Your task to perform on an android device: delete the emails in spam in the gmail app Image 0: 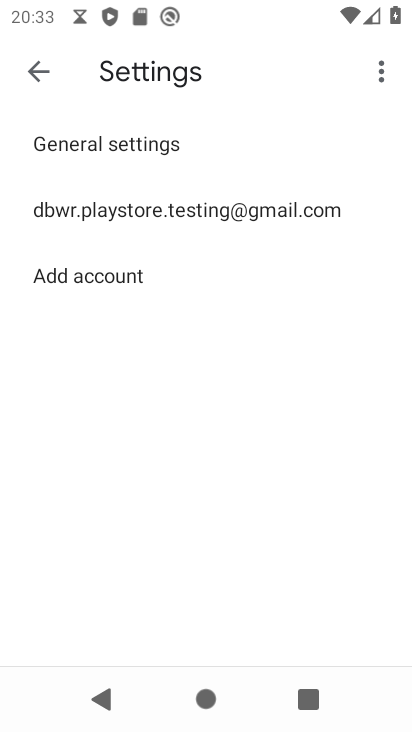
Step 0: press back button
Your task to perform on an android device: delete the emails in spam in the gmail app Image 1: 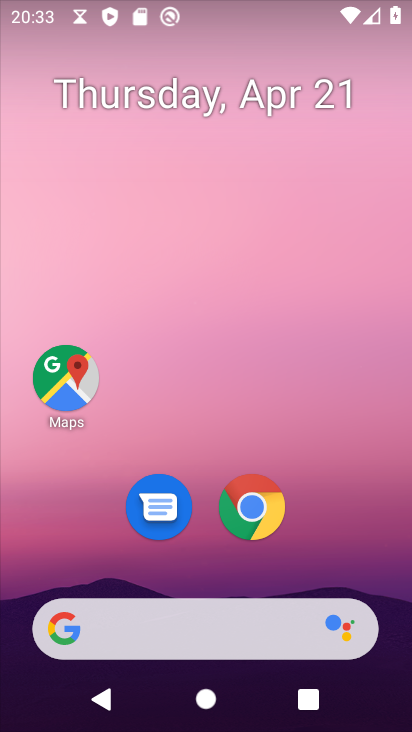
Step 1: drag from (182, 489) to (276, 46)
Your task to perform on an android device: delete the emails in spam in the gmail app Image 2: 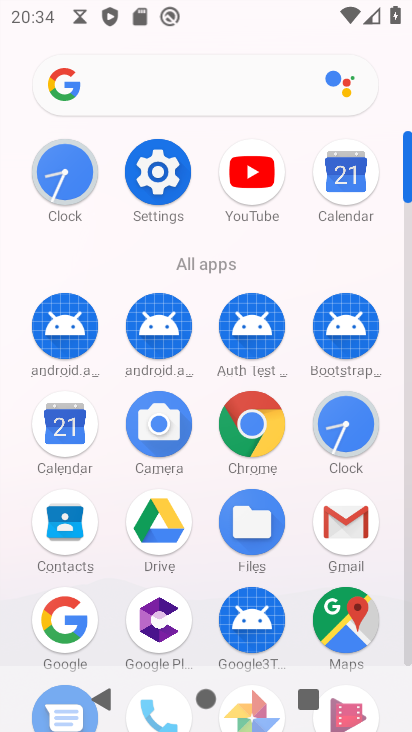
Step 2: click (343, 517)
Your task to perform on an android device: delete the emails in spam in the gmail app Image 3: 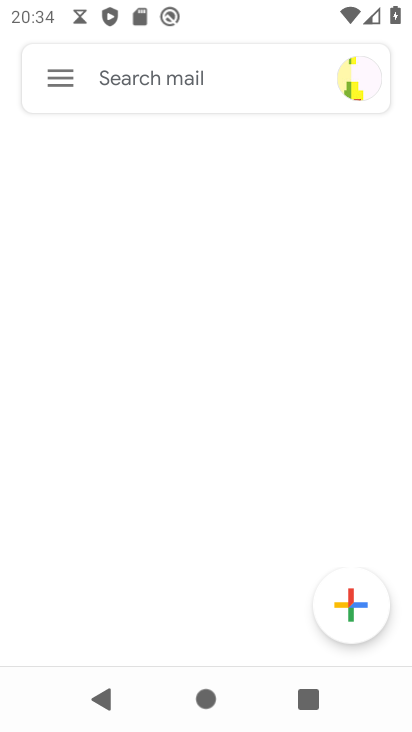
Step 3: click (346, 522)
Your task to perform on an android device: delete the emails in spam in the gmail app Image 4: 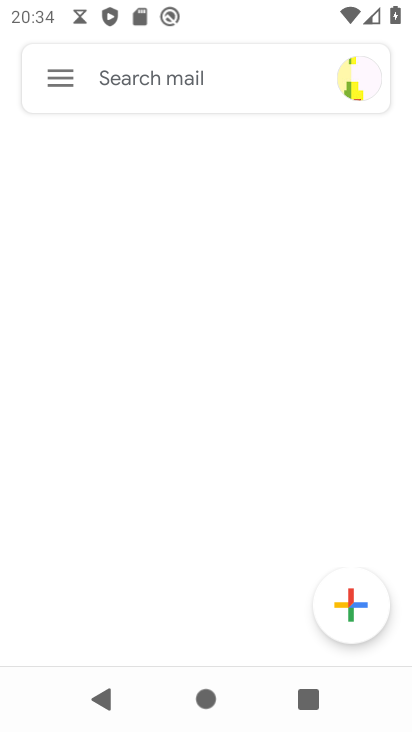
Step 4: click (63, 78)
Your task to perform on an android device: delete the emails in spam in the gmail app Image 5: 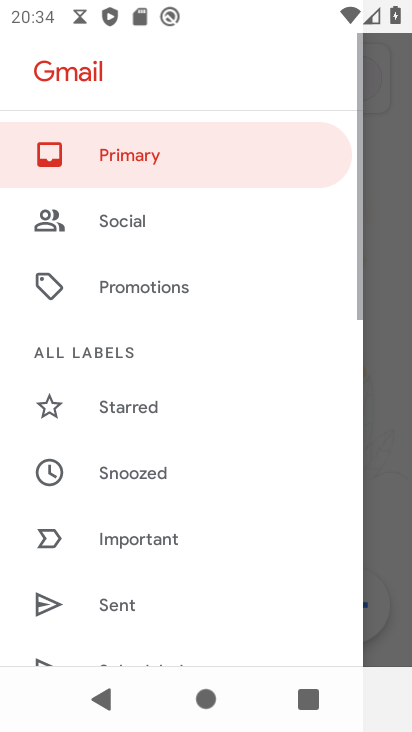
Step 5: click (63, 78)
Your task to perform on an android device: delete the emails in spam in the gmail app Image 6: 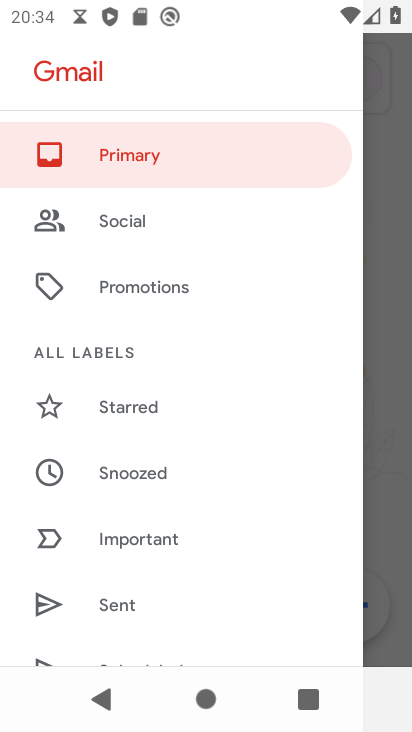
Step 6: drag from (226, 244) to (265, 90)
Your task to perform on an android device: delete the emails in spam in the gmail app Image 7: 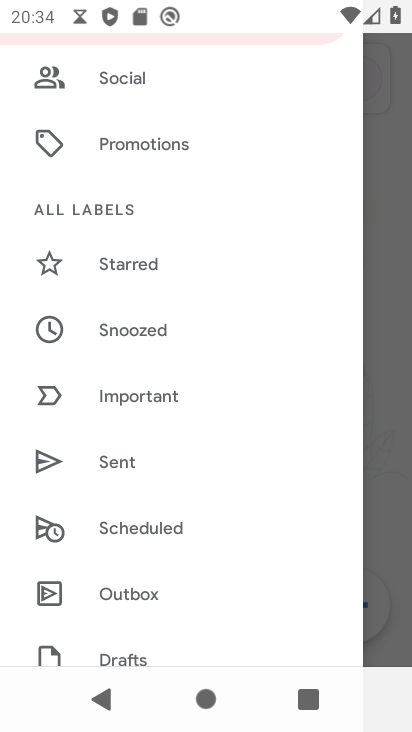
Step 7: drag from (154, 599) to (252, 138)
Your task to perform on an android device: delete the emails in spam in the gmail app Image 8: 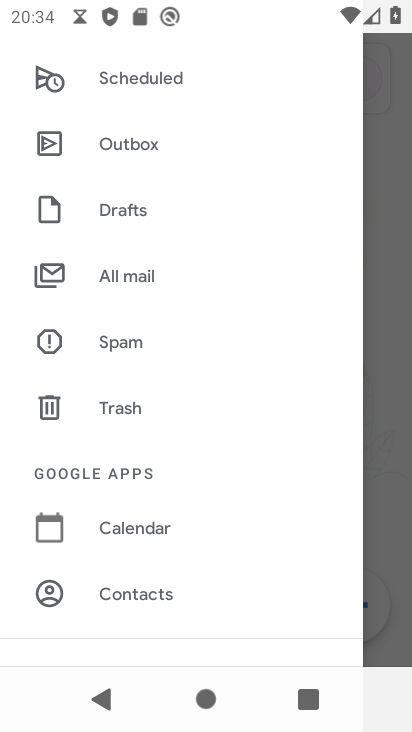
Step 8: click (130, 336)
Your task to perform on an android device: delete the emails in spam in the gmail app Image 9: 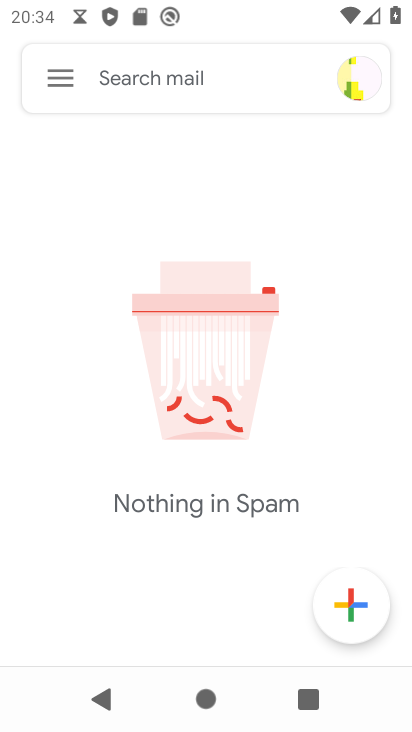
Step 9: task complete